Your task to perform on an android device: toggle priority inbox in the gmail app Image 0: 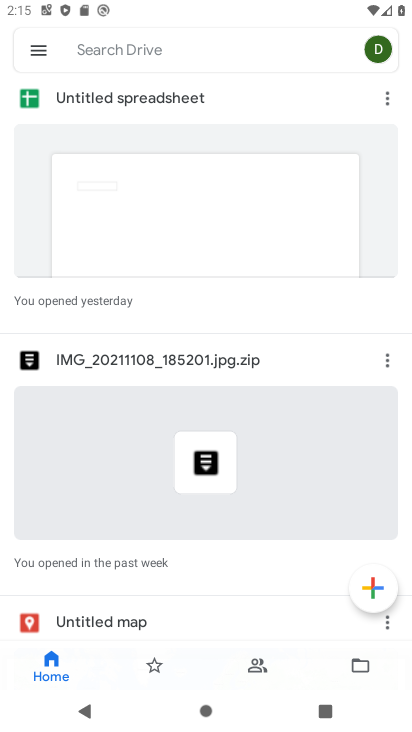
Step 0: press home button
Your task to perform on an android device: toggle priority inbox in the gmail app Image 1: 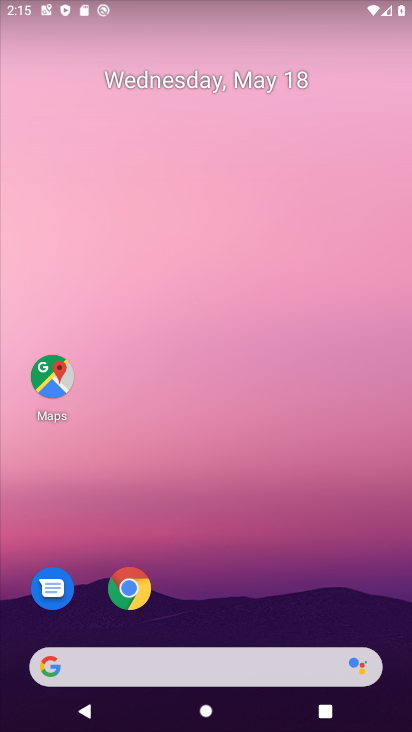
Step 1: drag from (358, 578) to (337, 160)
Your task to perform on an android device: toggle priority inbox in the gmail app Image 2: 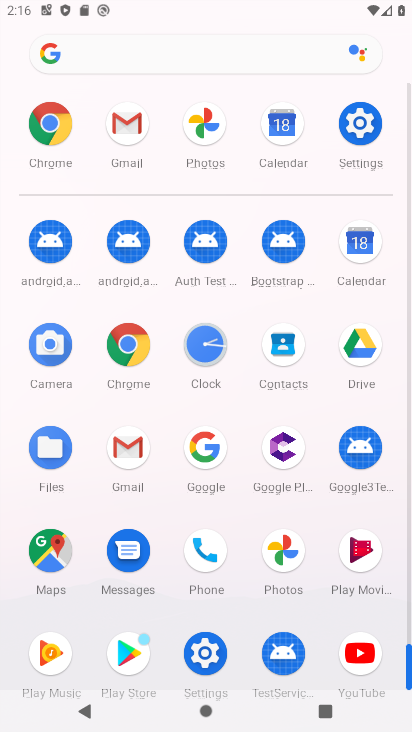
Step 2: click (140, 452)
Your task to perform on an android device: toggle priority inbox in the gmail app Image 3: 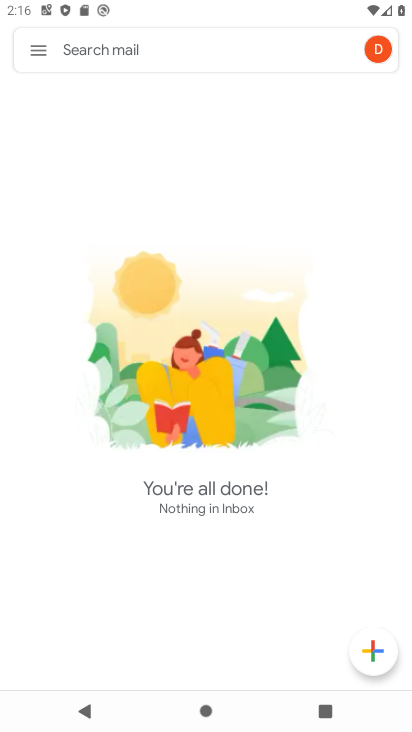
Step 3: click (36, 57)
Your task to perform on an android device: toggle priority inbox in the gmail app Image 4: 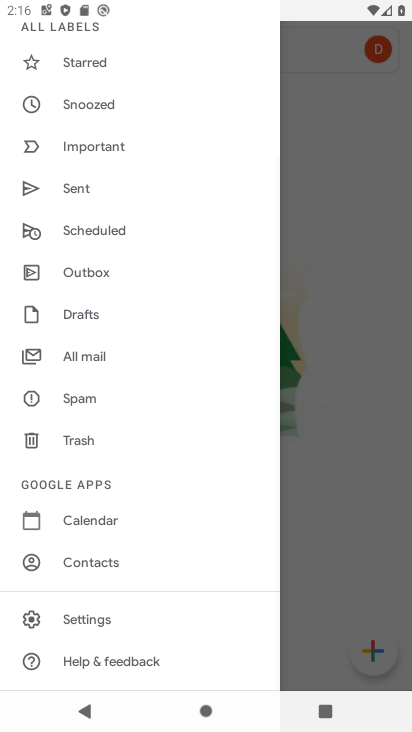
Step 4: drag from (193, 616) to (211, 378)
Your task to perform on an android device: toggle priority inbox in the gmail app Image 5: 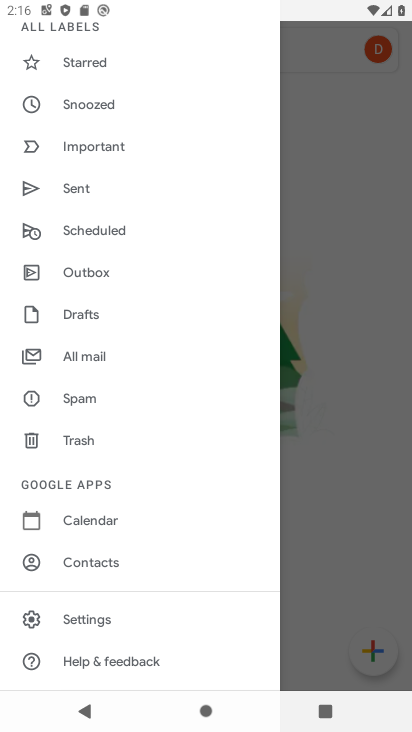
Step 5: drag from (202, 205) to (181, 352)
Your task to perform on an android device: toggle priority inbox in the gmail app Image 6: 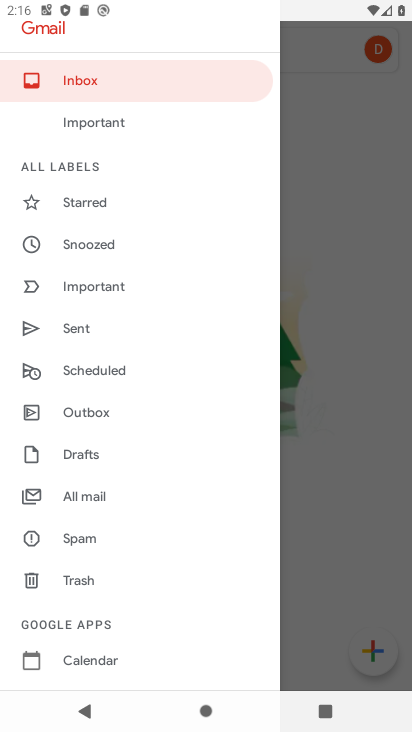
Step 6: drag from (170, 176) to (171, 374)
Your task to perform on an android device: toggle priority inbox in the gmail app Image 7: 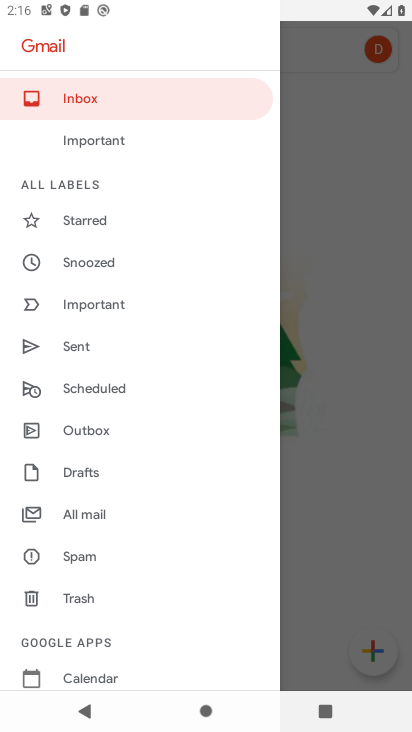
Step 7: drag from (206, 534) to (204, 430)
Your task to perform on an android device: toggle priority inbox in the gmail app Image 8: 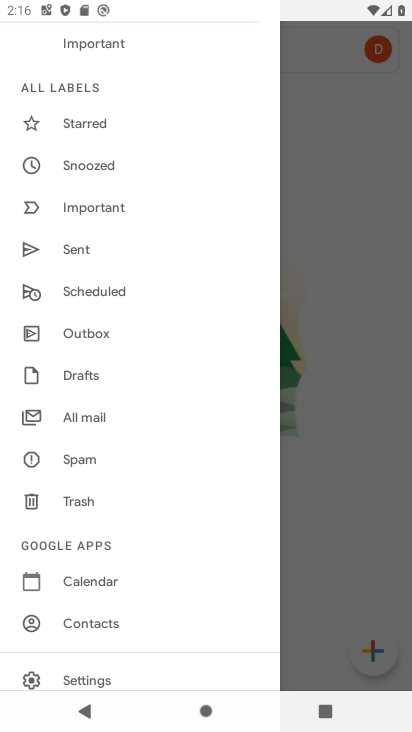
Step 8: drag from (201, 534) to (201, 341)
Your task to perform on an android device: toggle priority inbox in the gmail app Image 9: 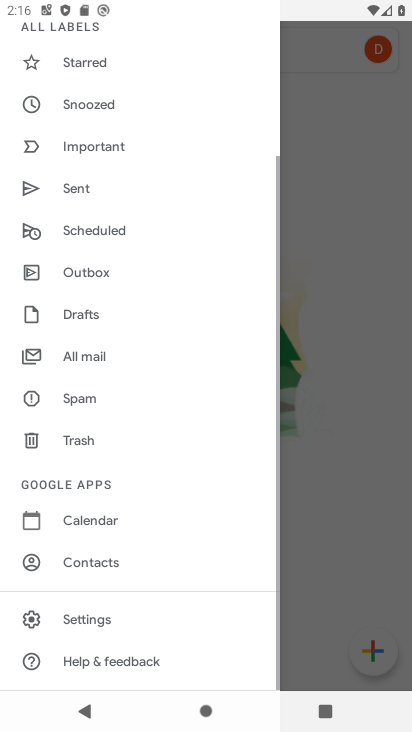
Step 9: drag from (180, 596) to (178, 436)
Your task to perform on an android device: toggle priority inbox in the gmail app Image 10: 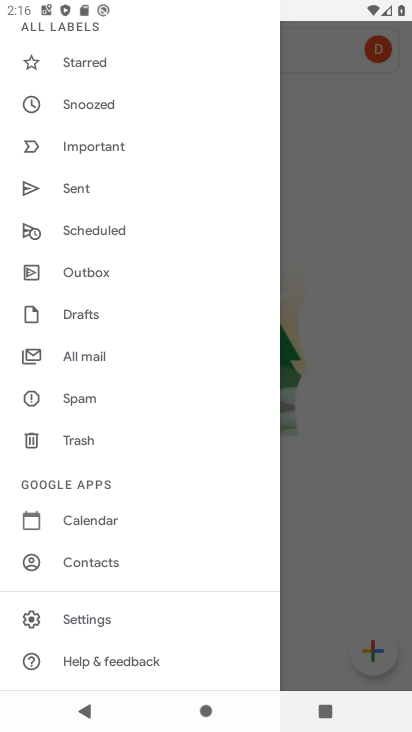
Step 10: click (122, 628)
Your task to perform on an android device: toggle priority inbox in the gmail app Image 11: 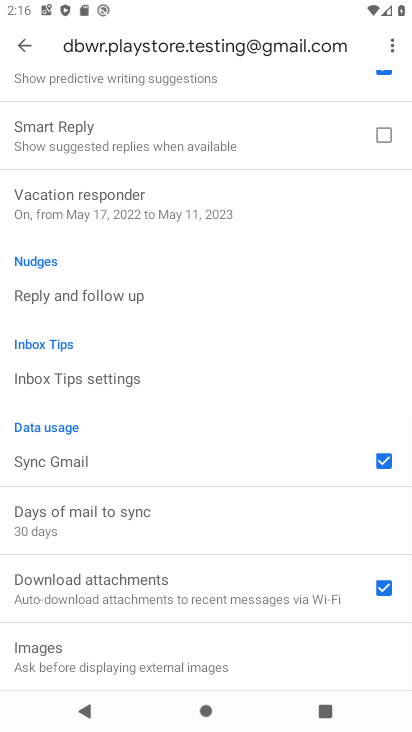
Step 11: task complete